Your task to perform on an android device: When is my next appointment? Image 0: 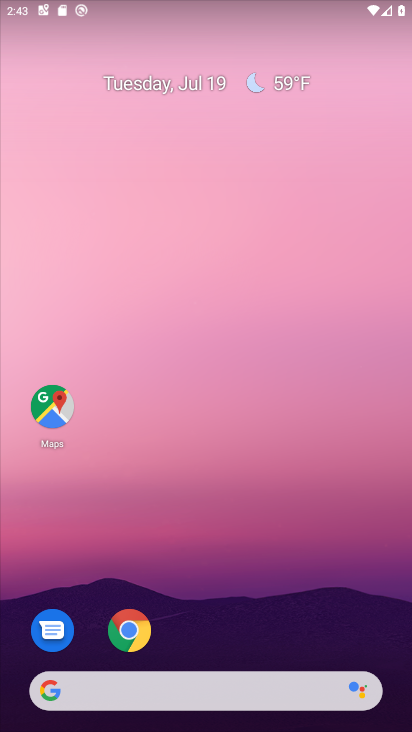
Step 0: drag from (268, 574) to (226, 122)
Your task to perform on an android device: When is my next appointment? Image 1: 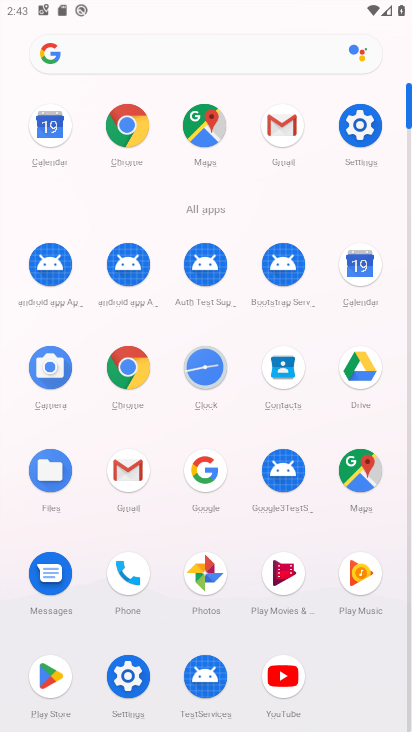
Step 1: click (362, 264)
Your task to perform on an android device: When is my next appointment? Image 2: 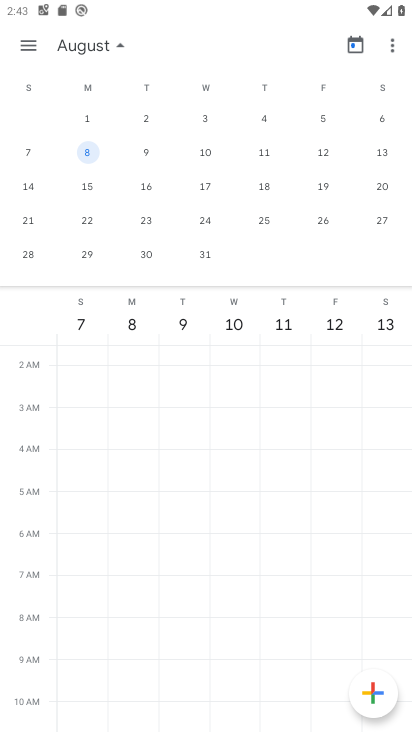
Step 2: click (122, 47)
Your task to perform on an android device: When is my next appointment? Image 3: 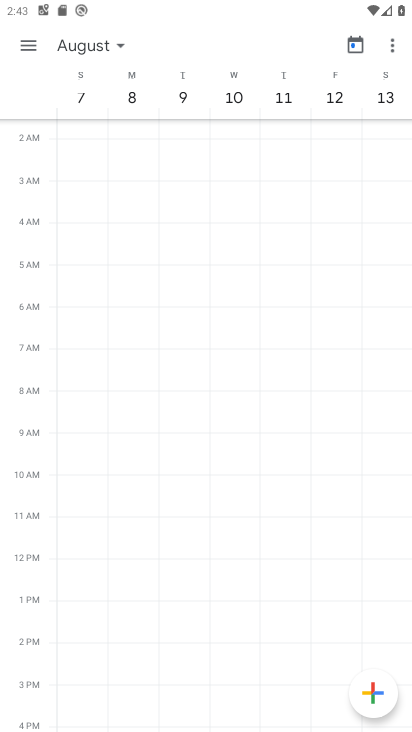
Step 3: click (122, 47)
Your task to perform on an android device: When is my next appointment? Image 4: 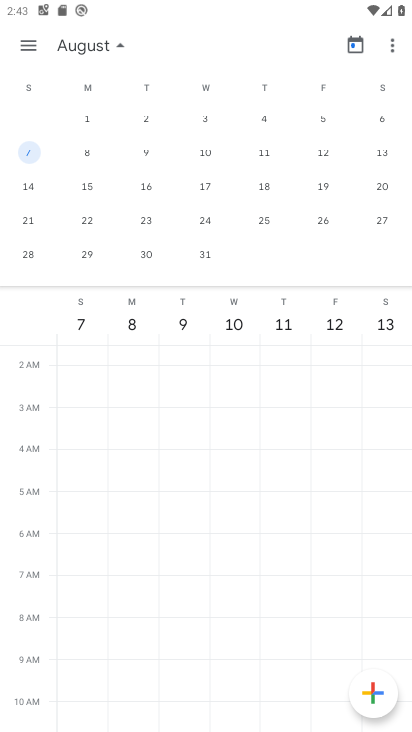
Step 4: drag from (30, 173) to (389, 201)
Your task to perform on an android device: When is my next appointment? Image 5: 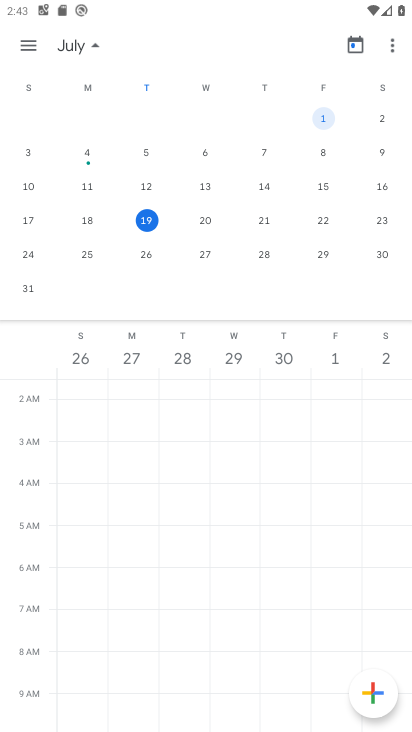
Step 5: click (146, 211)
Your task to perform on an android device: When is my next appointment? Image 6: 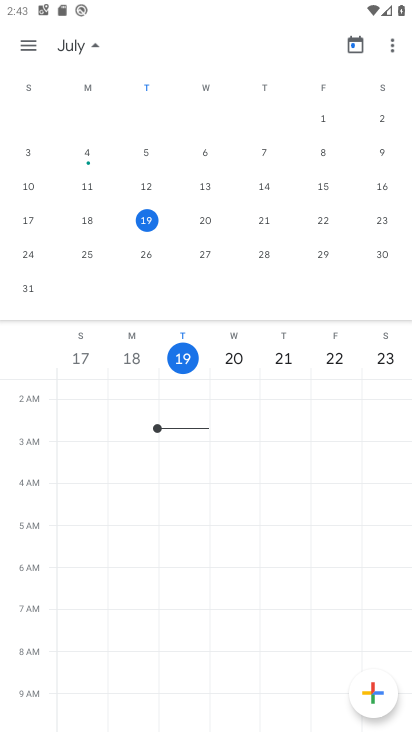
Step 6: task complete